Your task to perform on an android device: set default search engine in the chrome app Image 0: 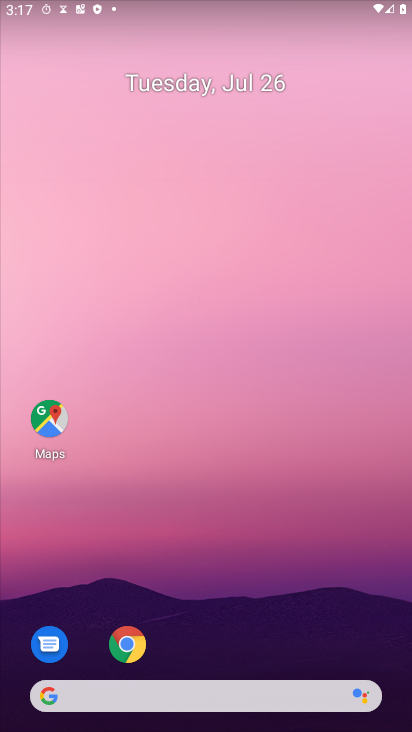
Step 0: press home button
Your task to perform on an android device: set default search engine in the chrome app Image 1: 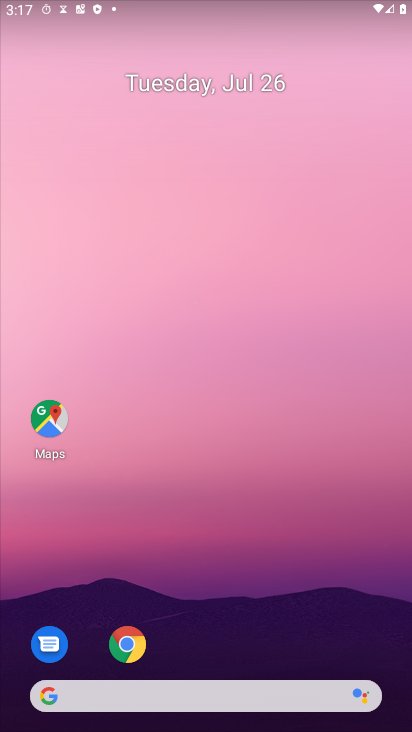
Step 1: drag from (285, 644) to (328, 84)
Your task to perform on an android device: set default search engine in the chrome app Image 2: 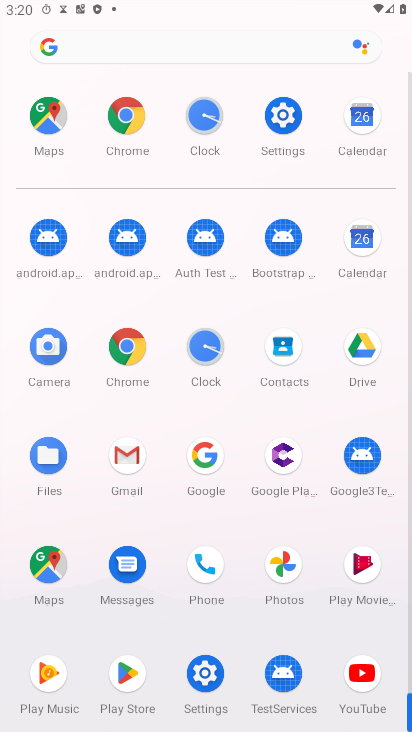
Step 2: click (129, 125)
Your task to perform on an android device: set default search engine in the chrome app Image 3: 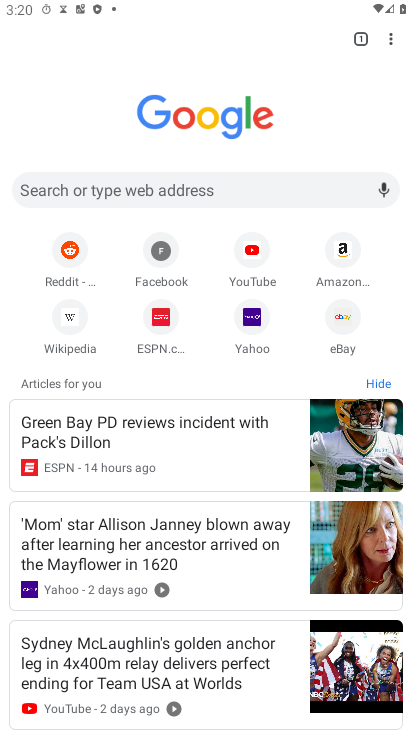
Step 3: drag from (389, 37) to (258, 320)
Your task to perform on an android device: set default search engine in the chrome app Image 4: 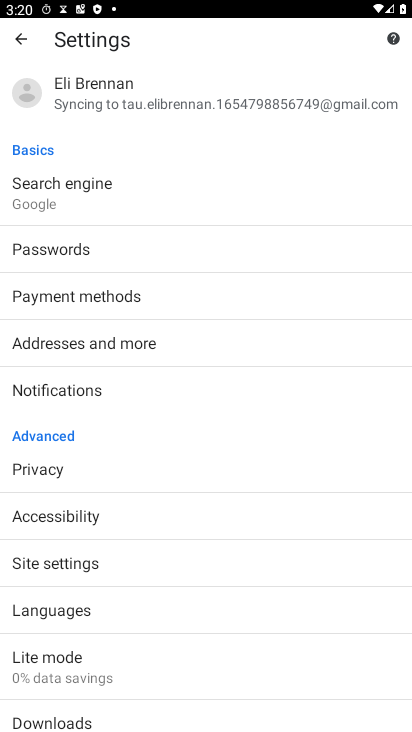
Step 4: click (70, 192)
Your task to perform on an android device: set default search engine in the chrome app Image 5: 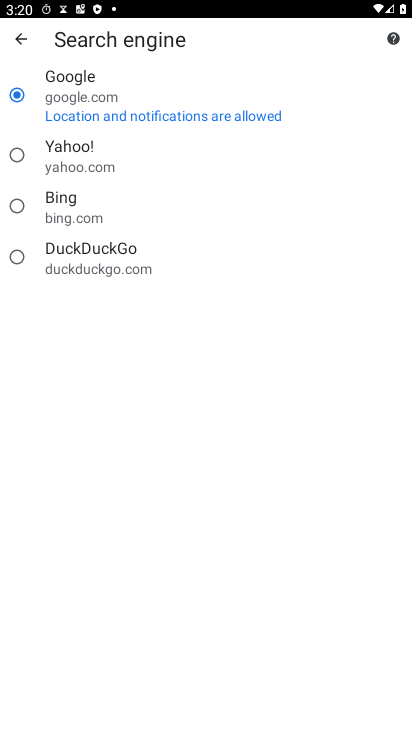
Step 5: task complete